Your task to perform on an android device: What's on my calendar tomorrow? Image 0: 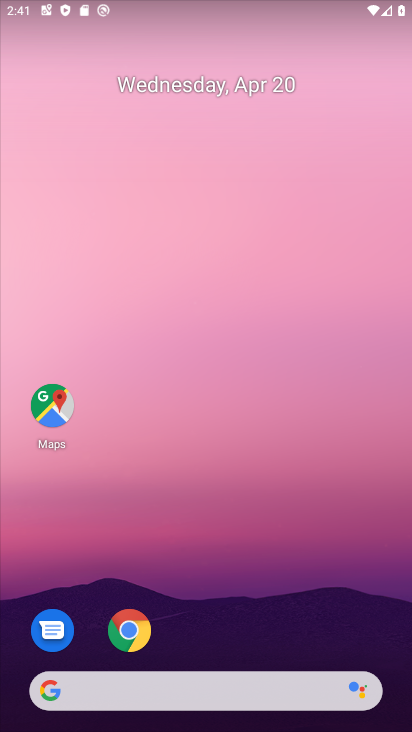
Step 0: drag from (391, 725) to (154, 260)
Your task to perform on an android device: What's on my calendar tomorrow? Image 1: 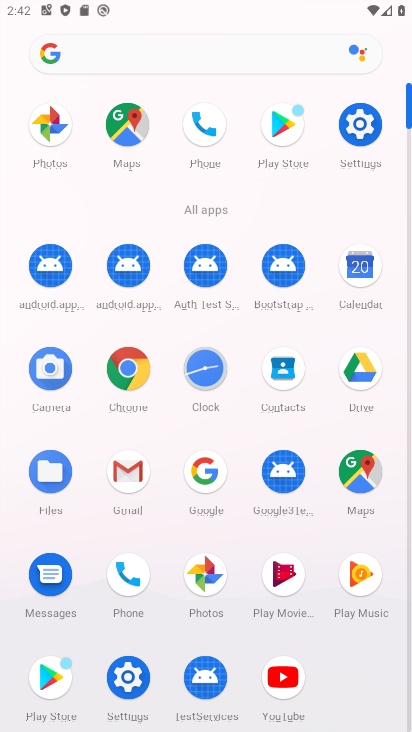
Step 1: click (356, 288)
Your task to perform on an android device: What's on my calendar tomorrow? Image 2: 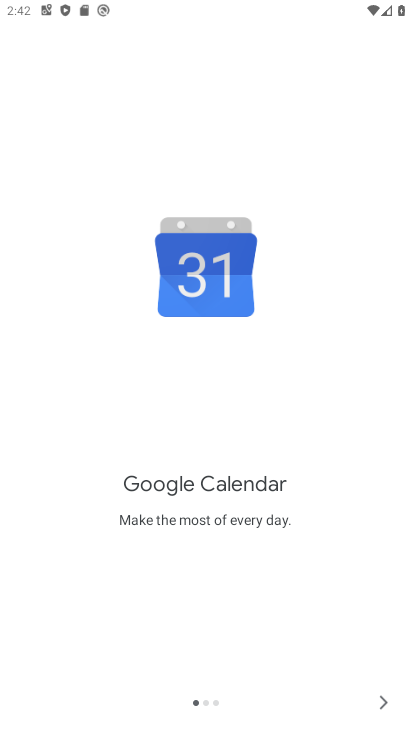
Step 2: click (386, 693)
Your task to perform on an android device: What's on my calendar tomorrow? Image 3: 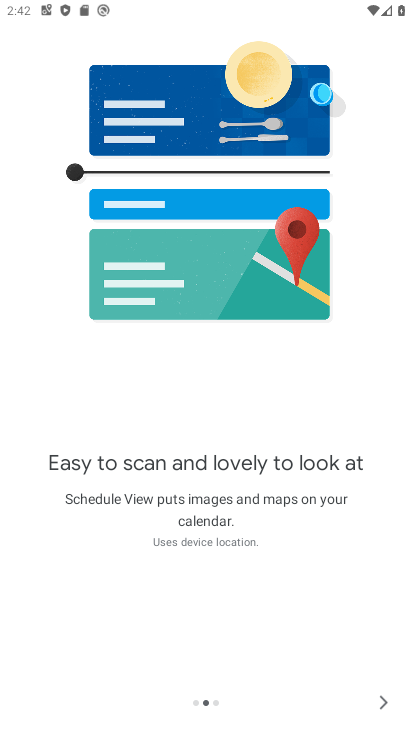
Step 3: click (384, 697)
Your task to perform on an android device: What's on my calendar tomorrow? Image 4: 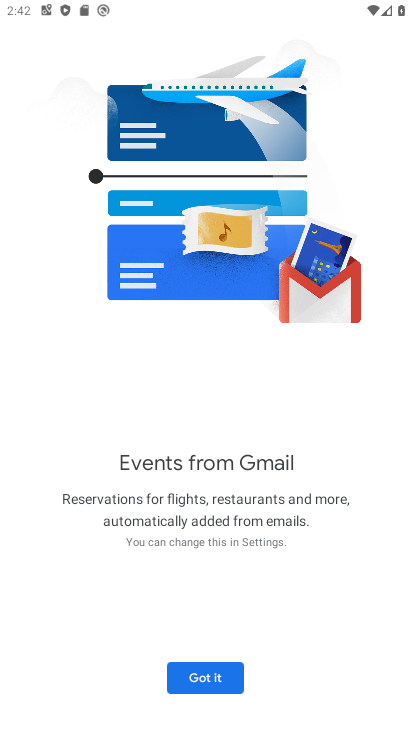
Step 4: click (202, 682)
Your task to perform on an android device: What's on my calendar tomorrow? Image 5: 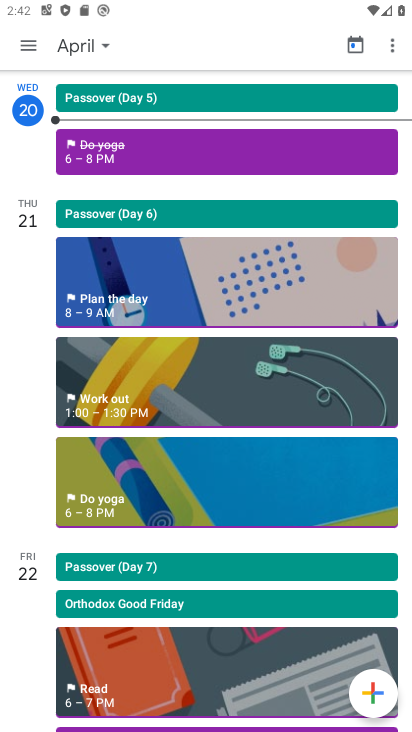
Step 5: task complete